Your task to perform on an android device: Go to Wikipedia Image 0: 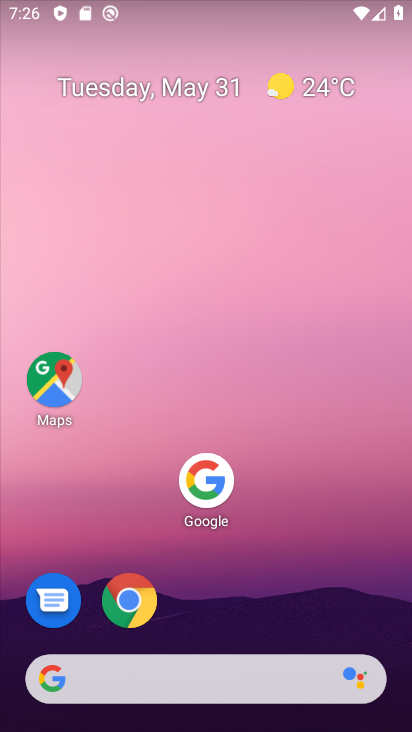
Step 0: click (135, 607)
Your task to perform on an android device: Go to Wikipedia Image 1: 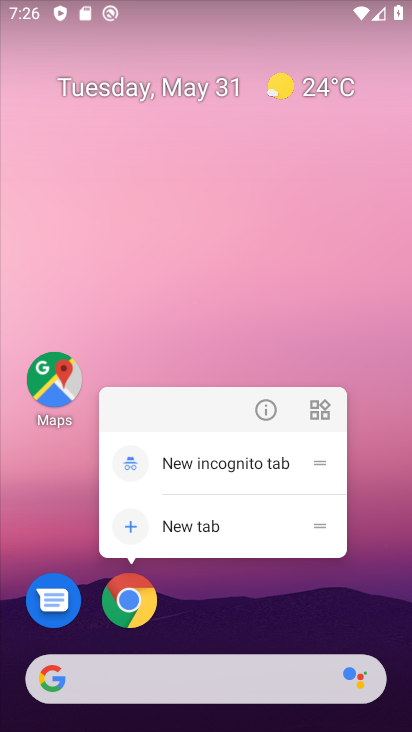
Step 1: click (122, 601)
Your task to perform on an android device: Go to Wikipedia Image 2: 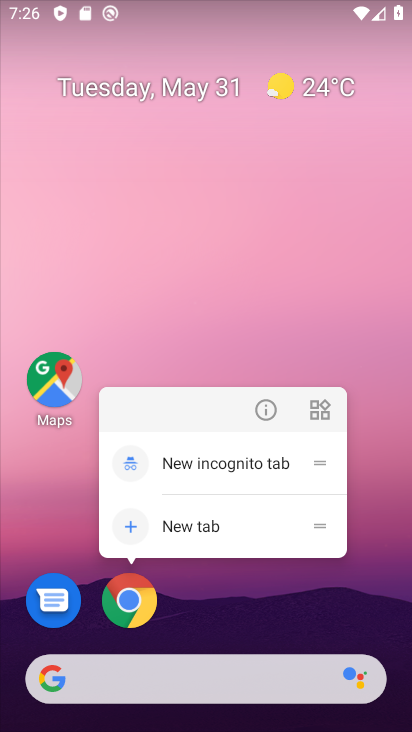
Step 2: click (131, 589)
Your task to perform on an android device: Go to Wikipedia Image 3: 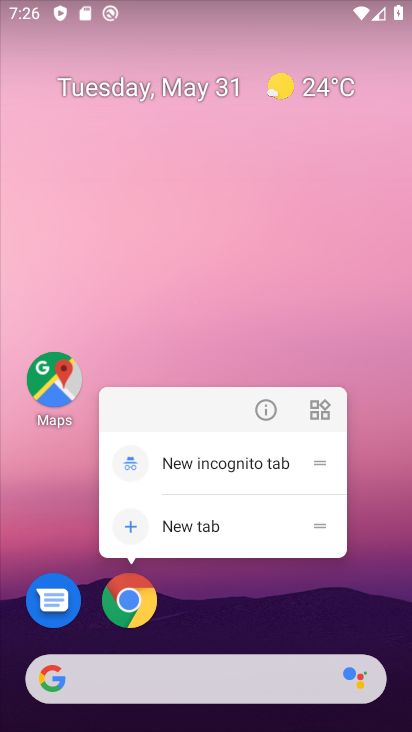
Step 3: click (131, 599)
Your task to perform on an android device: Go to Wikipedia Image 4: 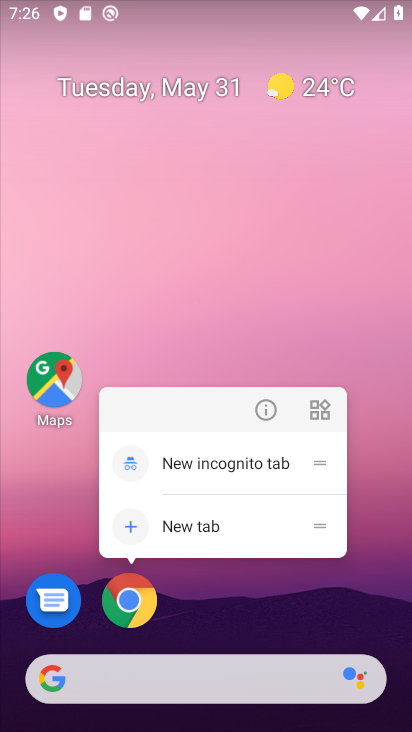
Step 4: click (131, 602)
Your task to perform on an android device: Go to Wikipedia Image 5: 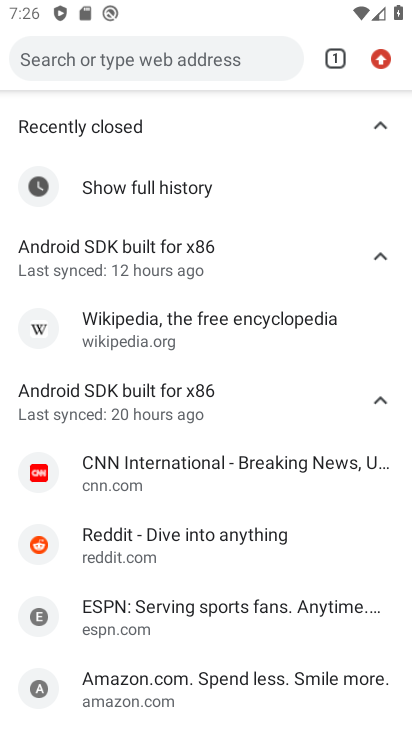
Step 5: click (378, 64)
Your task to perform on an android device: Go to Wikipedia Image 6: 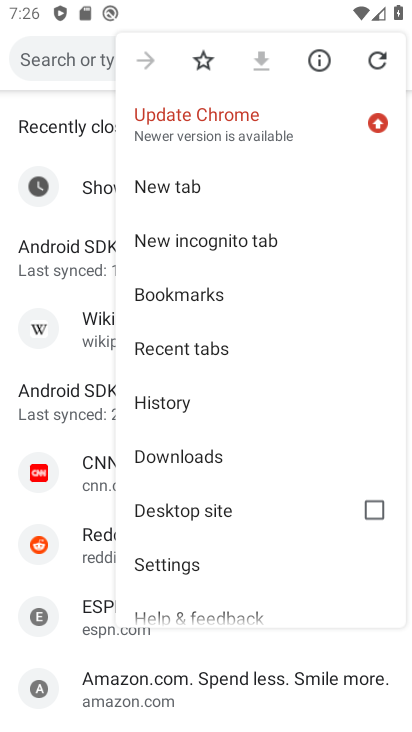
Step 6: click (167, 191)
Your task to perform on an android device: Go to Wikipedia Image 7: 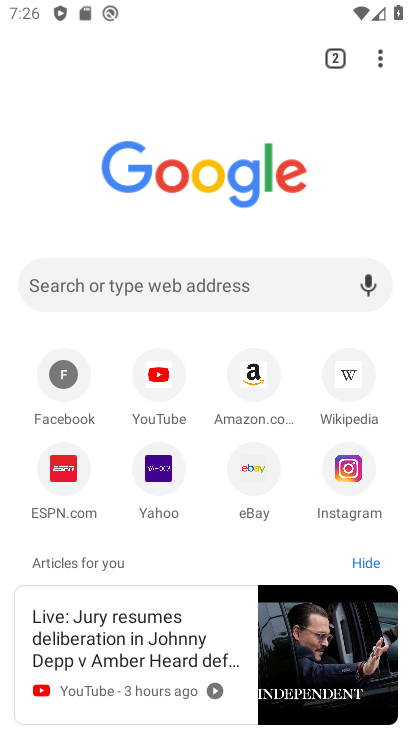
Step 7: click (349, 382)
Your task to perform on an android device: Go to Wikipedia Image 8: 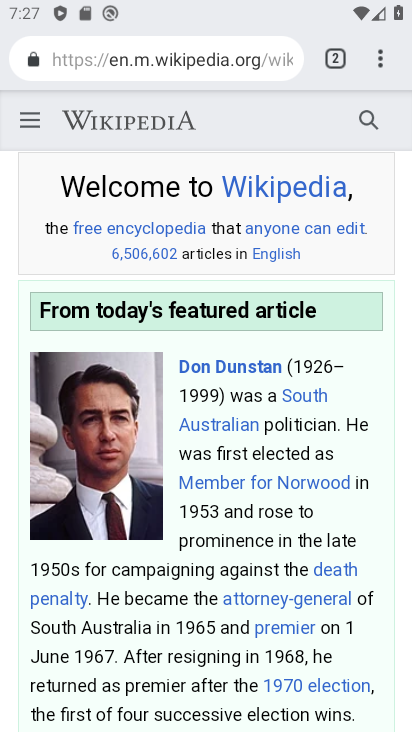
Step 8: task complete